Your task to perform on an android device: find photos in the google photos app Image 0: 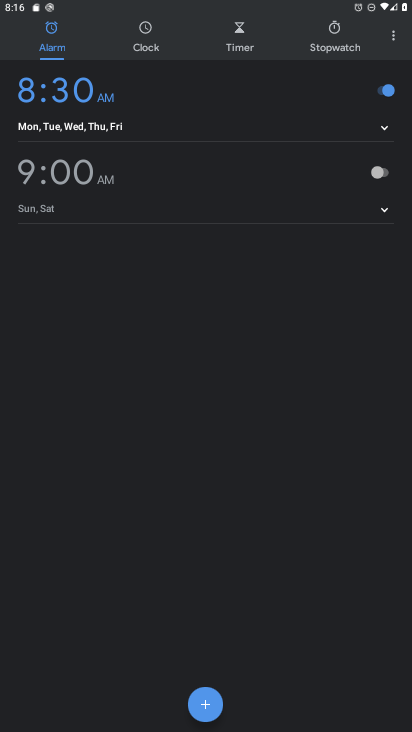
Step 0: press home button
Your task to perform on an android device: find photos in the google photos app Image 1: 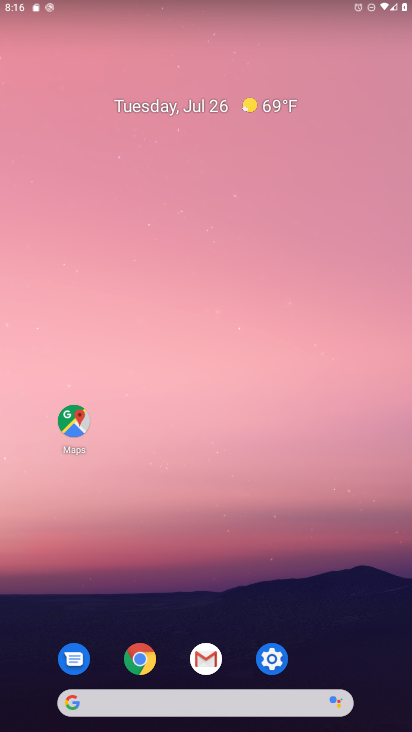
Step 1: drag from (245, 716) to (255, 210)
Your task to perform on an android device: find photos in the google photos app Image 2: 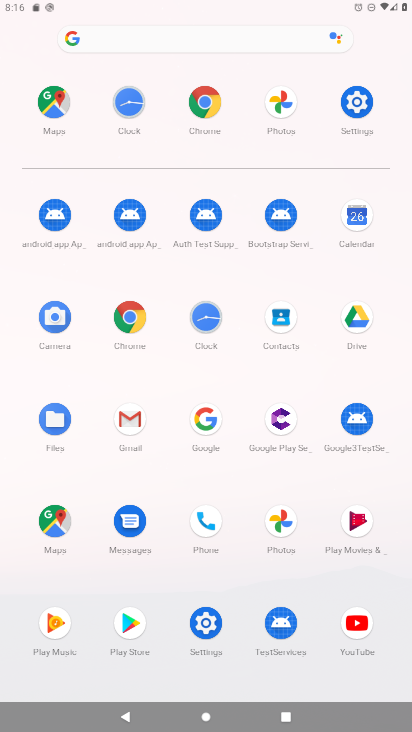
Step 2: click (279, 523)
Your task to perform on an android device: find photos in the google photos app Image 3: 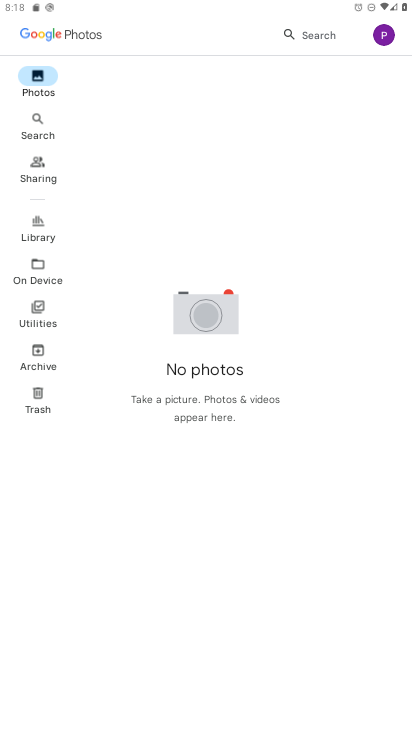
Step 3: task complete